Your task to perform on an android device: install app "Skype" Image 0: 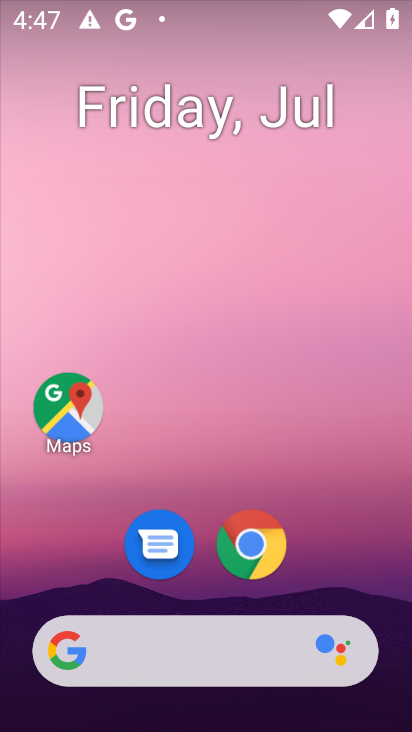
Step 0: drag from (211, 544) to (163, 162)
Your task to perform on an android device: install app "Skype" Image 1: 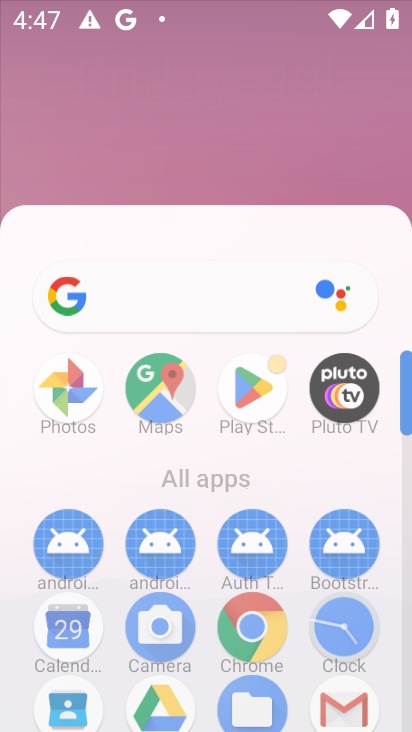
Step 1: drag from (206, 445) to (131, 142)
Your task to perform on an android device: install app "Skype" Image 2: 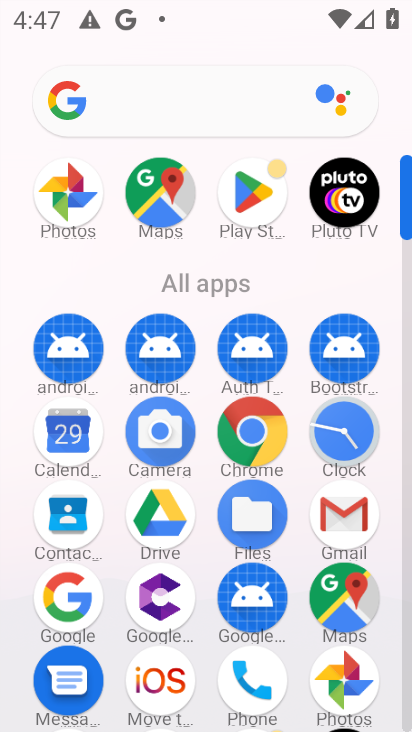
Step 2: drag from (170, 562) to (119, 41)
Your task to perform on an android device: install app "Skype" Image 3: 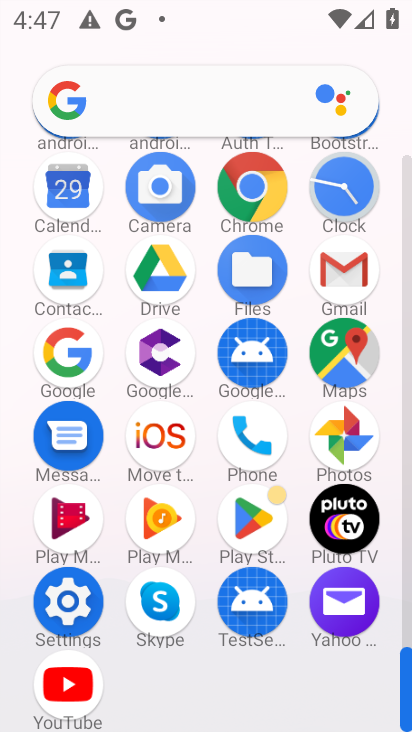
Step 3: drag from (186, 449) to (133, 182)
Your task to perform on an android device: install app "Skype" Image 4: 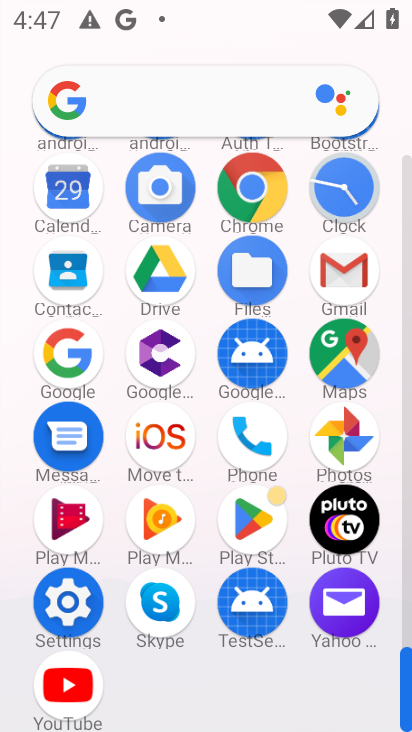
Step 4: drag from (196, 257) to (197, 422)
Your task to perform on an android device: install app "Skype" Image 5: 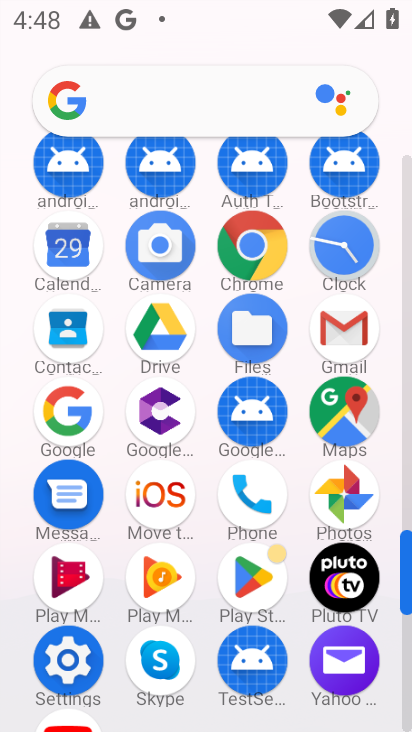
Step 5: drag from (173, 245) to (173, 356)
Your task to perform on an android device: install app "Skype" Image 6: 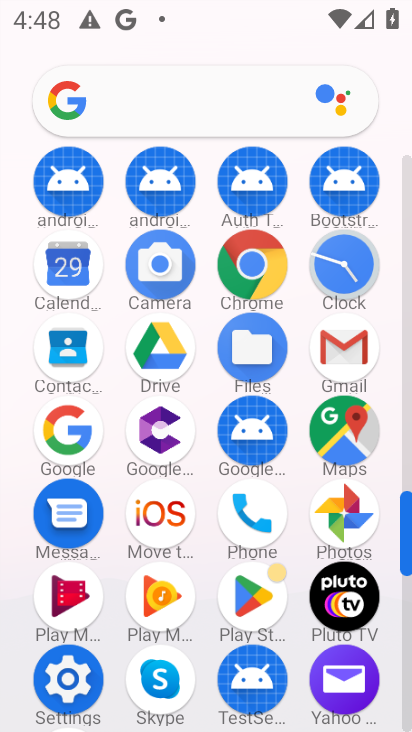
Step 6: drag from (193, 246) to (197, 395)
Your task to perform on an android device: install app "Skype" Image 7: 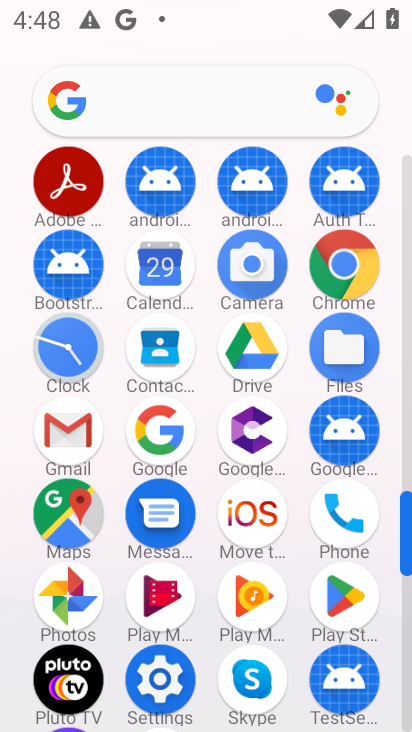
Step 7: drag from (228, 597) to (196, 248)
Your task to perform on an android device: install app "Skype" Image 8: 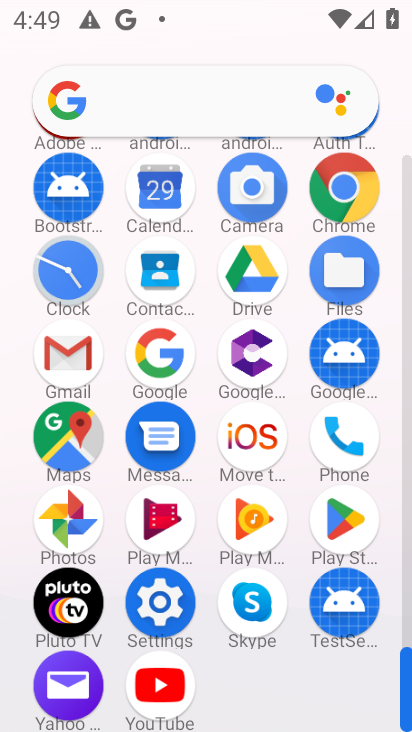
Step 8: drag from (209, 272) to (206, 547)
Your task to perform on an android device: install app "Skype" Image 9: 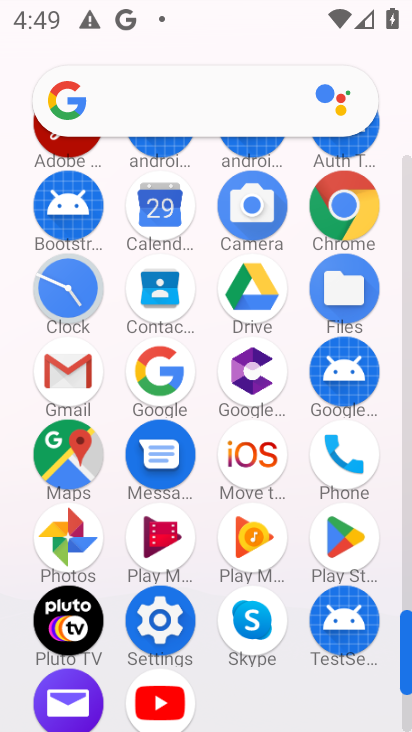
Step 9: drag from (223, 345) to (239, 596)
Your task to perform on an android device: install app "Skype" Image 10: 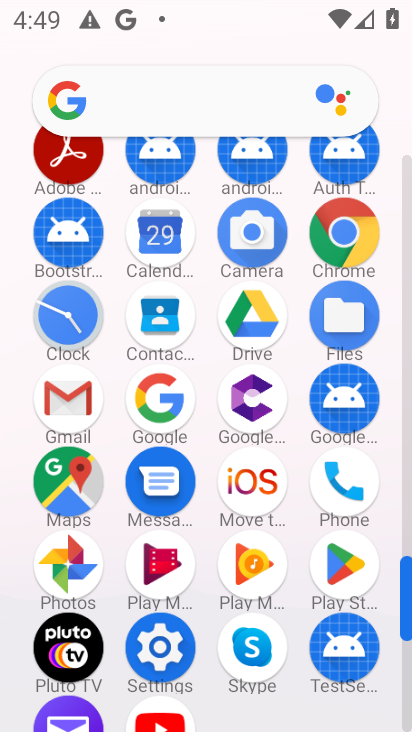
Step 10: drag from (223, 302) to (228, 595)
Your task to perform on an android device: install app "Skype" Image 11: 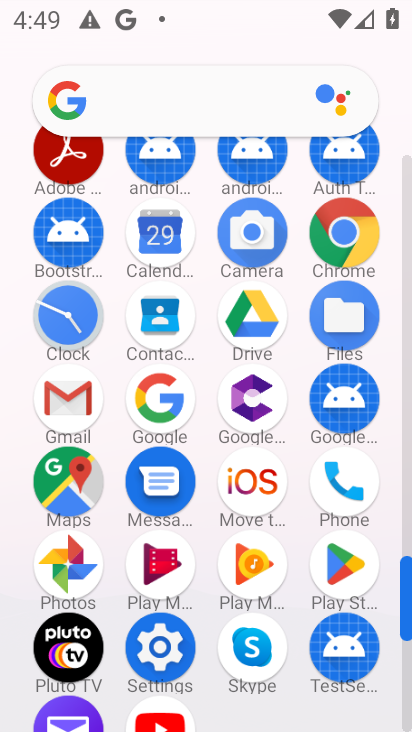
Step 11: drag from (252, 271) to (259, 527)
Your task to perform on an android device: install app "Skype" Image 12: 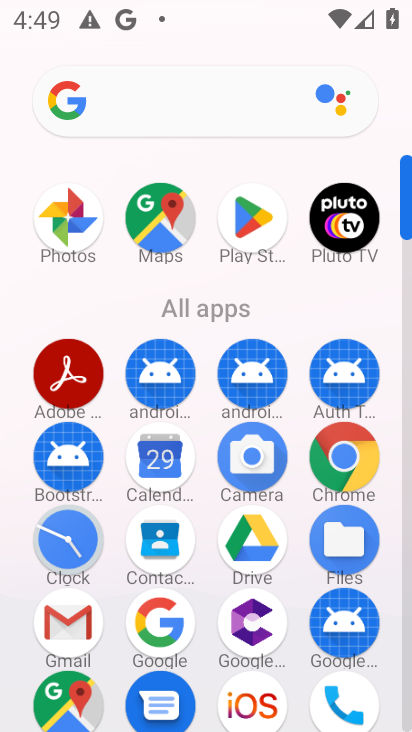
Step 12: drag from (294, 348) to (290, 600)
Your task to perform on an android device: install app "Skype" Image 13: 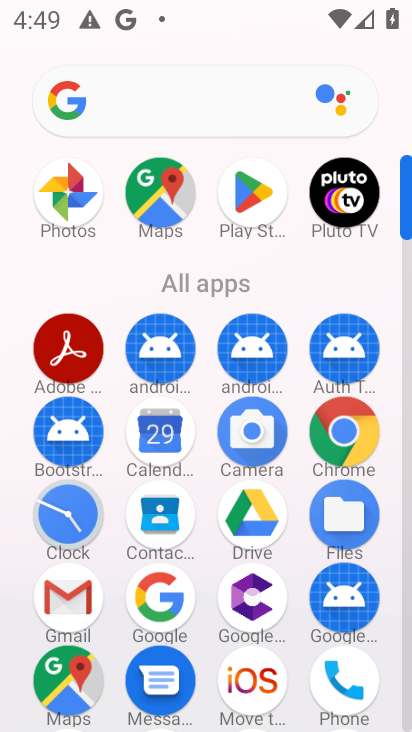
Step 13: click (251, 180)
Your task to perform on an android device: install app "Skype" Image 14: 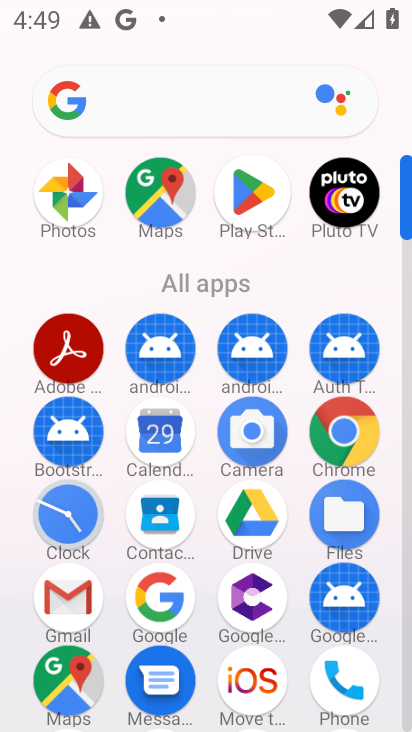
Step 14: click (245, 183)
Your task to perform on an android device: install app "Skype" Image 15: 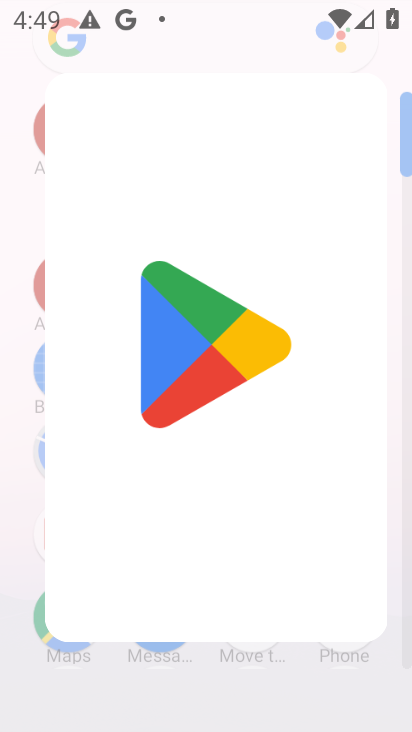
Step 15: click (245, 183)
Your task to perform on an android device: install app "Skype" Image 16: 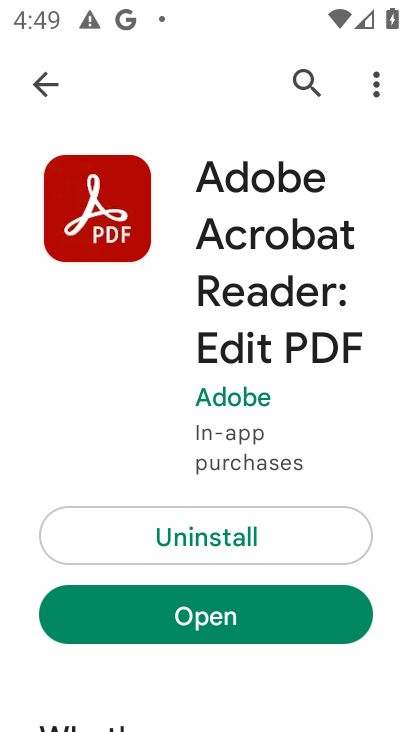
Step 16: click (33, 76)
Your task to perform on an android device: install app "Skype" Image 17: 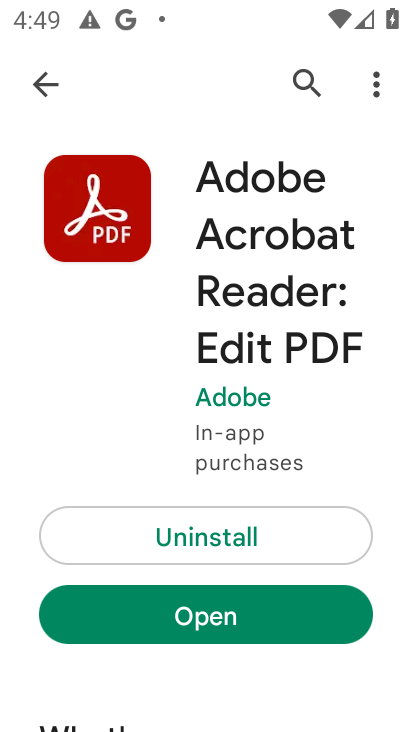
Step 17: click (34, 76)
Your task to perform on an android device: install app "Skype" Image 18: 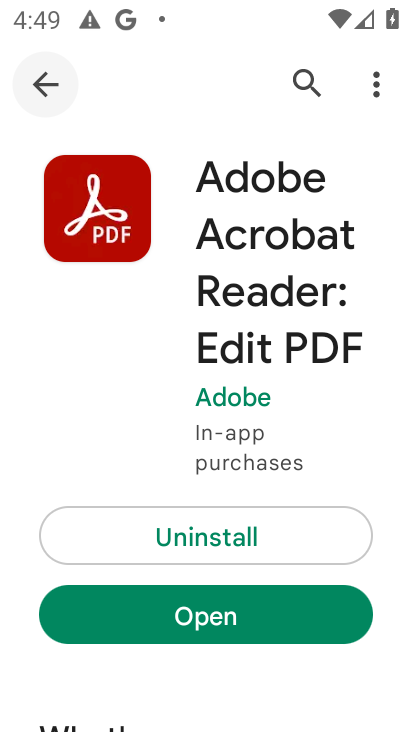
Step 18: click (34, 76)
Your task to perform on an android device: install app "Skype" Image 19: 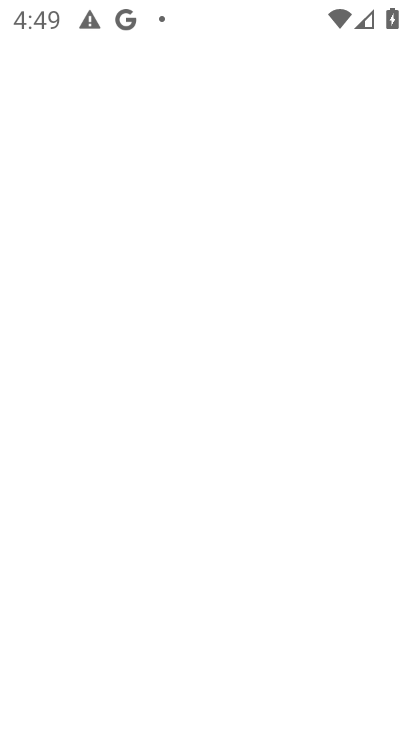
Step 19: click (141, 88)
Your task to perform on an android device: install app "Skype" Image 20: 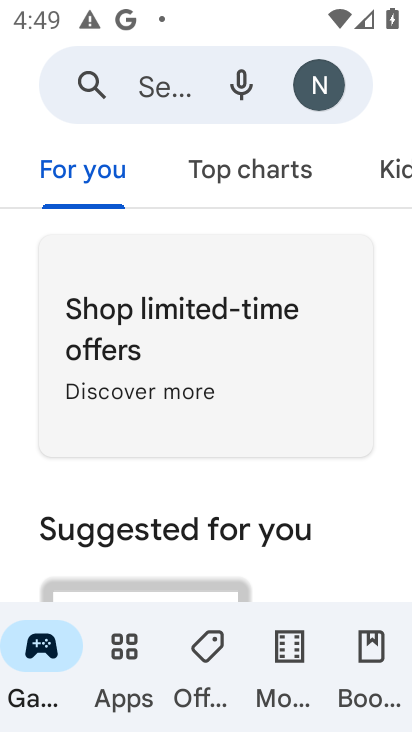
Step 20: click (142, 87)
Your task to perform on an android device: install app "Skype" Image 21: 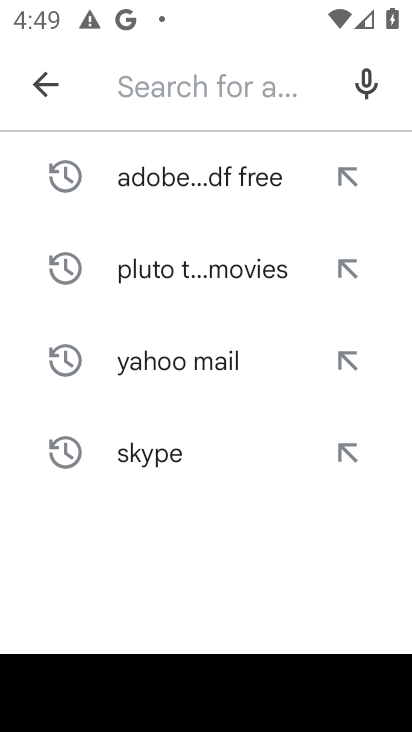
Step 21: click (161, 83)
Your task to perform on an android device: install app "Skype" Image 22: 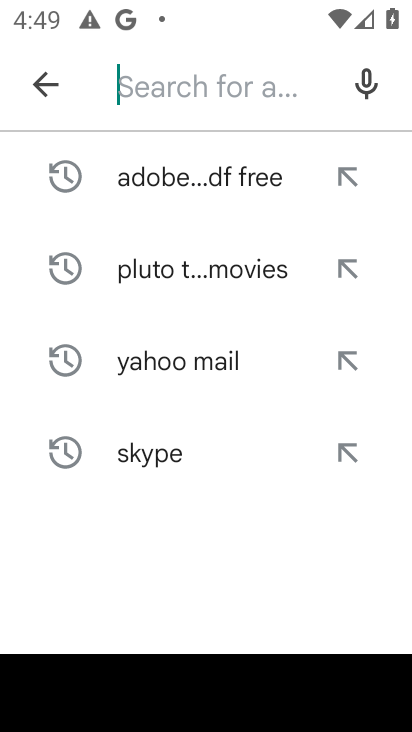
Step 22: type "Skype"
Your task to perform on an android device: install app "Skype" Image 23: 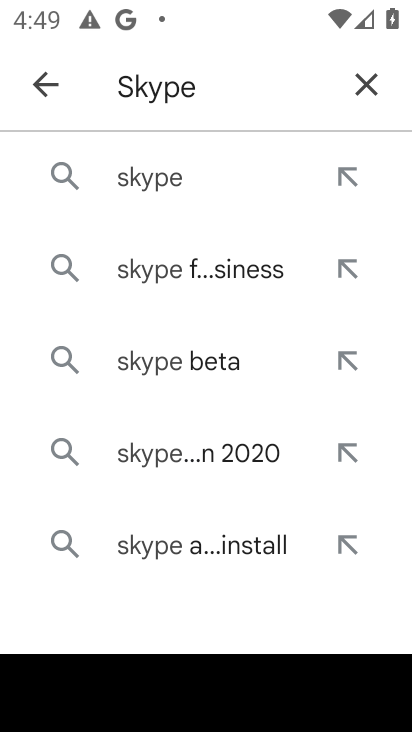
Step 23: click (184, 187)
Your task to perform on an android device: install app "Skype" Image 24: 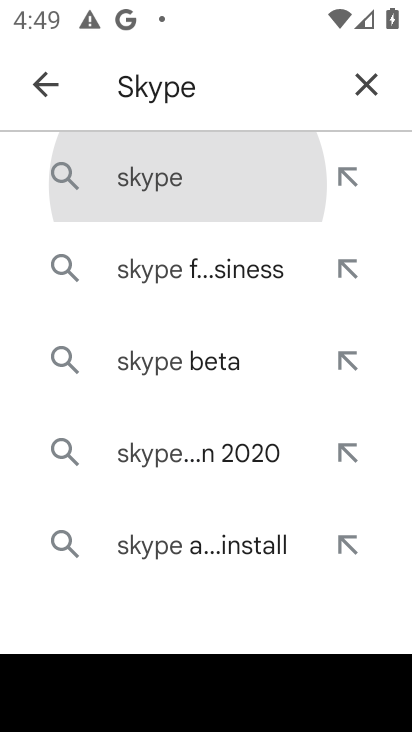
Step 24: click (184, 188)
Your task to perform on an android device: install app "Skype" Image 25: 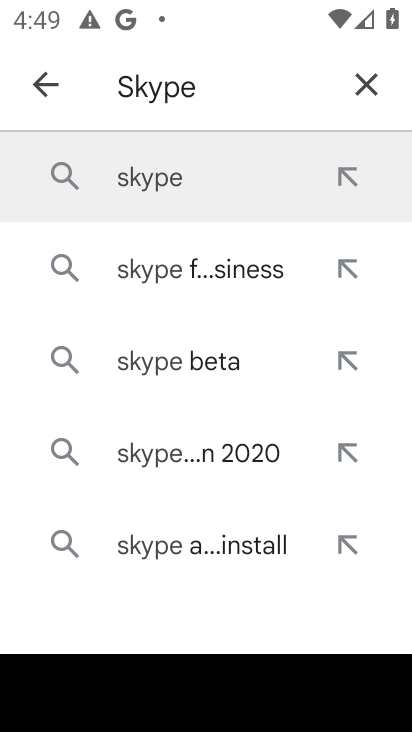
Step 25: click (184, 188)
Your task to perform on an android device: install app "Skype" Image 26: 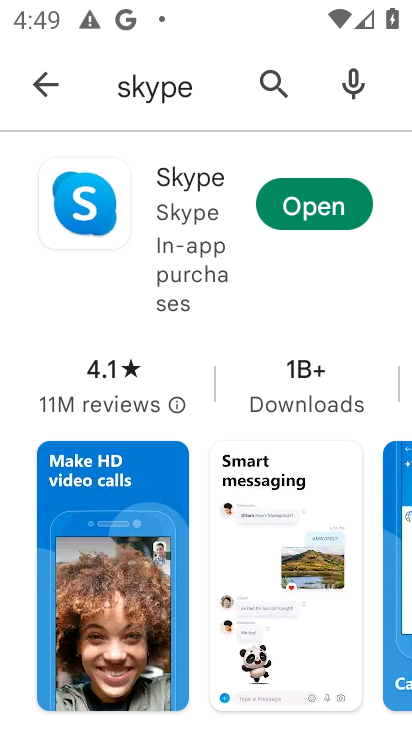
Step 26: click (309, 212)
Your task to perform on an android device: install app "Skype" Image 27: 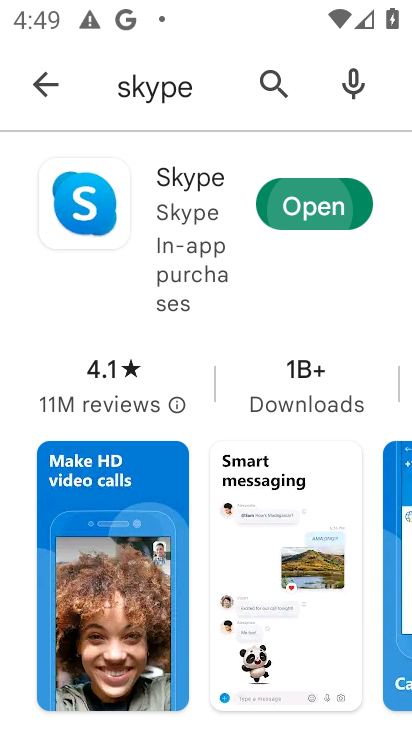
Step 27: click (309, 212)
Your task to perform on an android device: install app "Skype" Image 28: 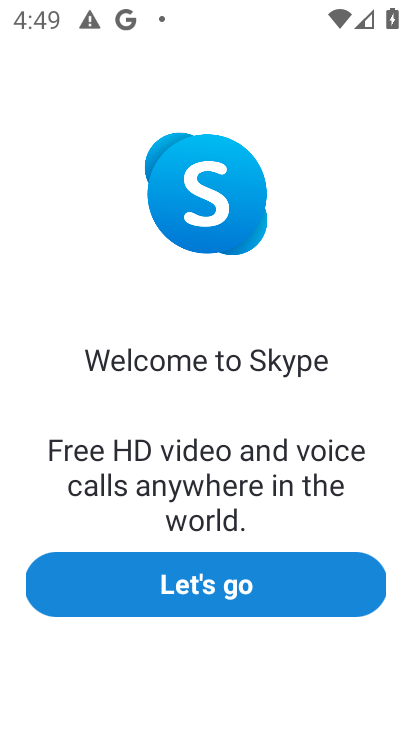
Step 28: click (247, 559)
Your task to perform on an android device: install app "Skype" Image 29: 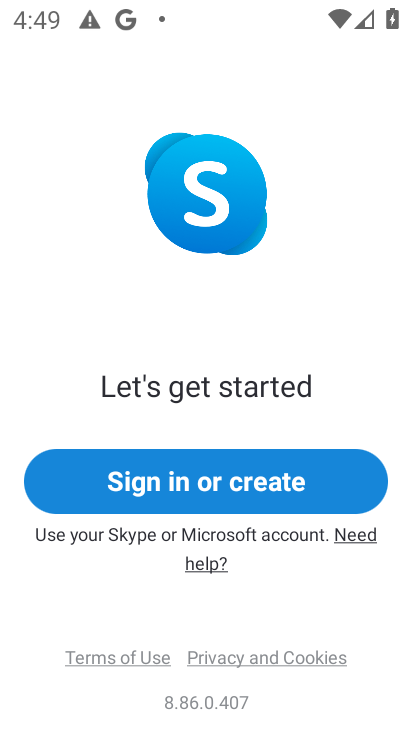
Step 29: task complete